Your task to perform on an android device: add a contact Image 0: 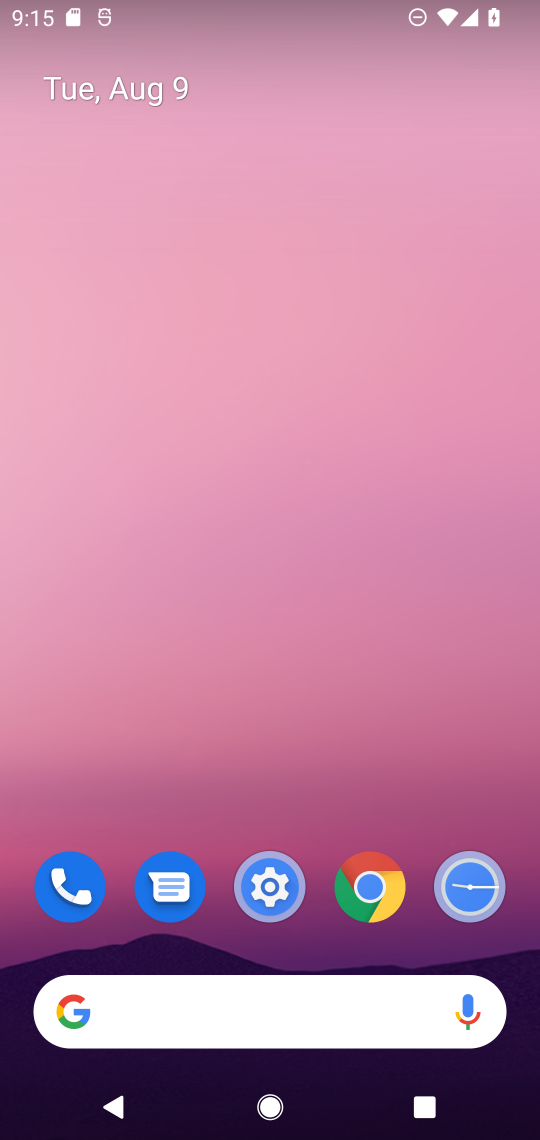
Step 0: drag from (293, 773) to (239, 293)
Your task to perform on an android device: add a contact Image 1: 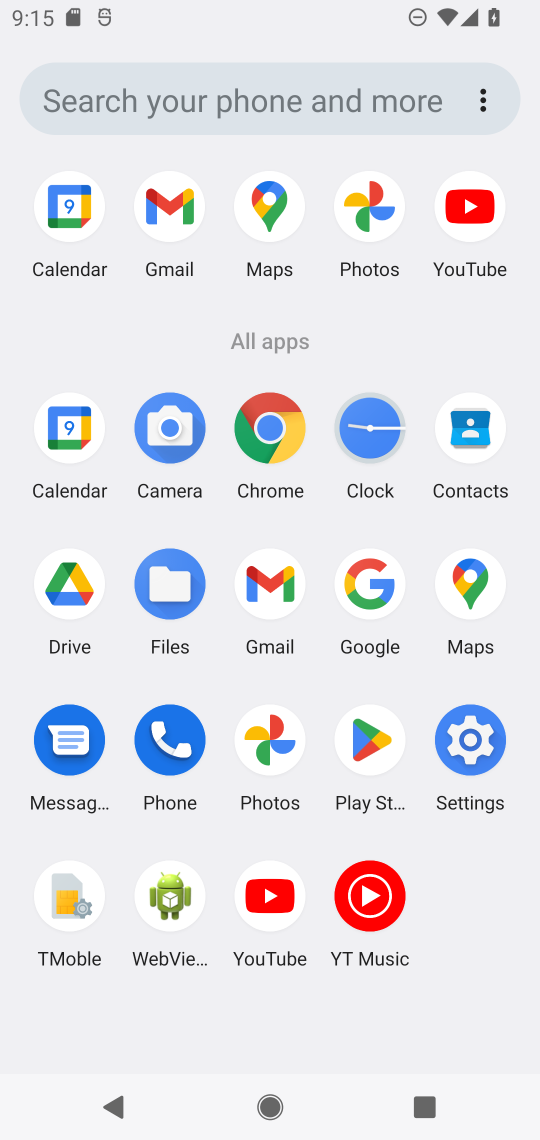
Step 1: click (456, 453)
Your task to perform on an android device: add a contact Image 2: 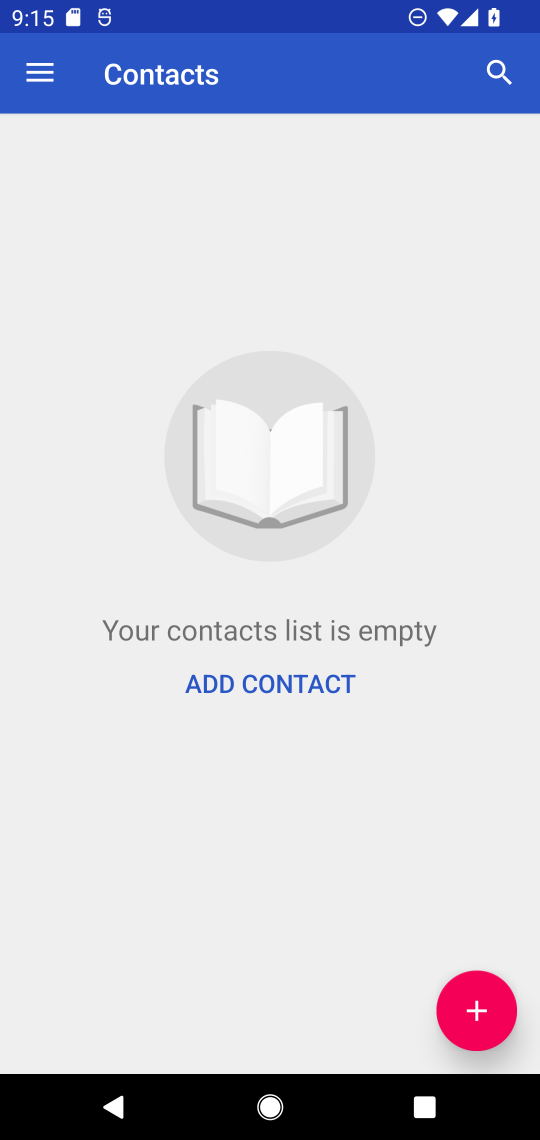
Step 2: click (473, 1008)
Your task to perform on an android device: add a contact Image 3: 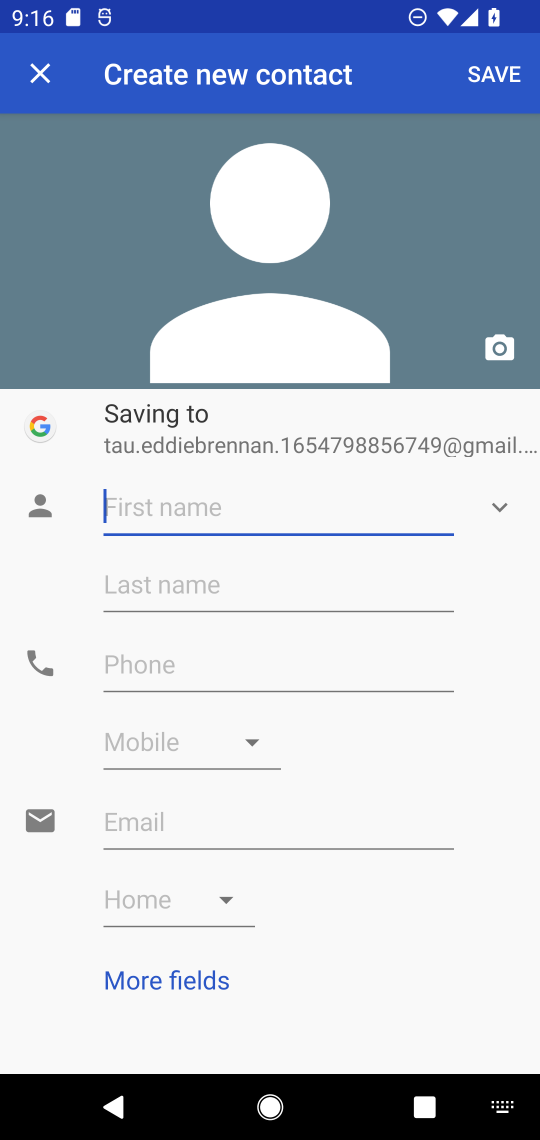
Step 3: type "vczdvz"
Your task to perform on an android device: add a contact Image 4: 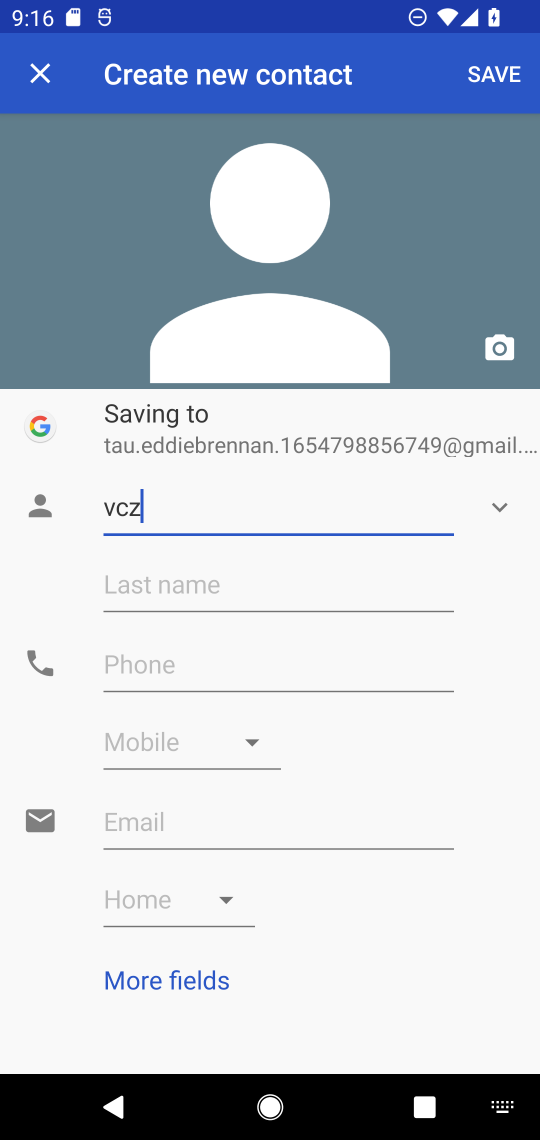
Step 4: type ""
Your task to perform on an android device: add a contact Image 5: 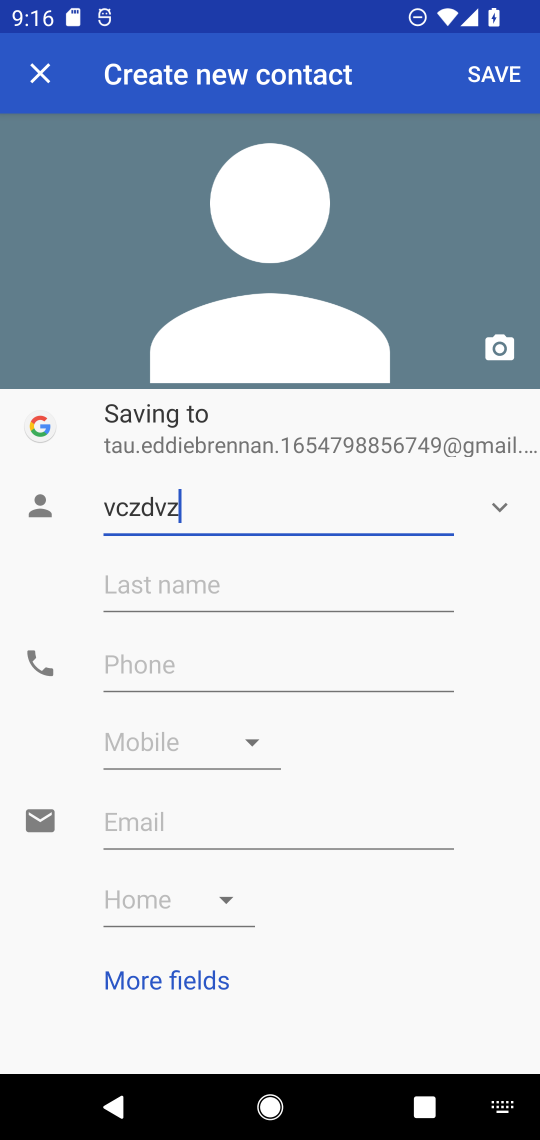
Step 5: click (146, 663)
Your task to perform on an android device: add a contact Image 6: 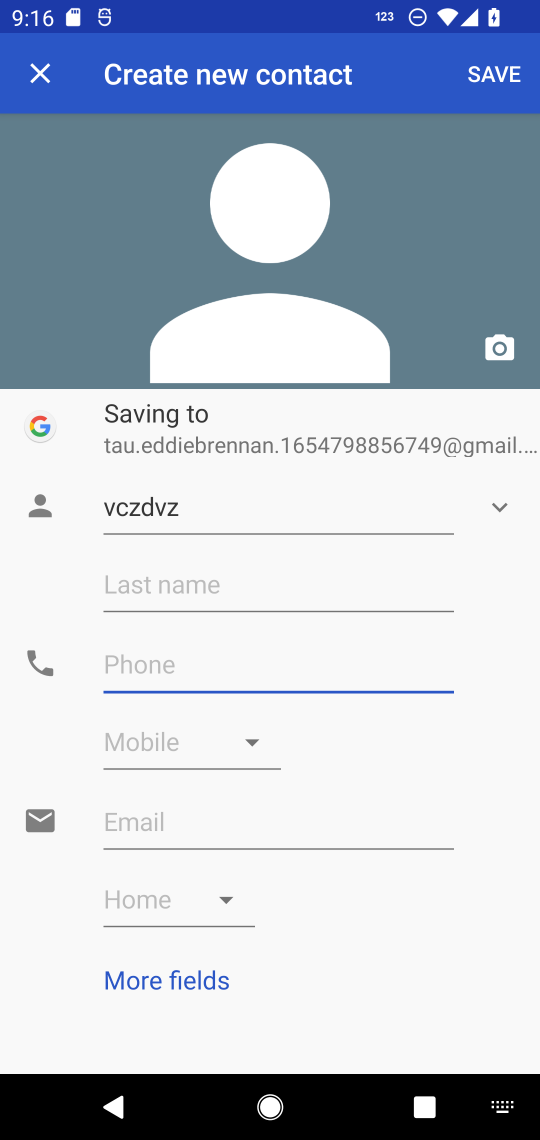
Step 6: type "6436453e346"
Your task to perform on an android device: add a contact Image 7: 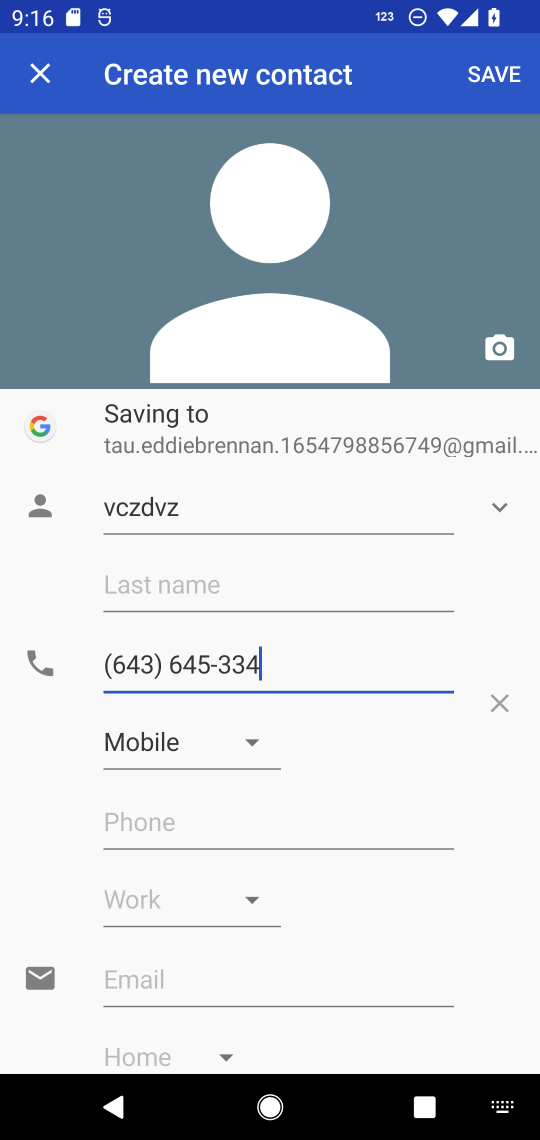
Step 7: type ""
Your task to perform on an android device: add a contact Image 8: 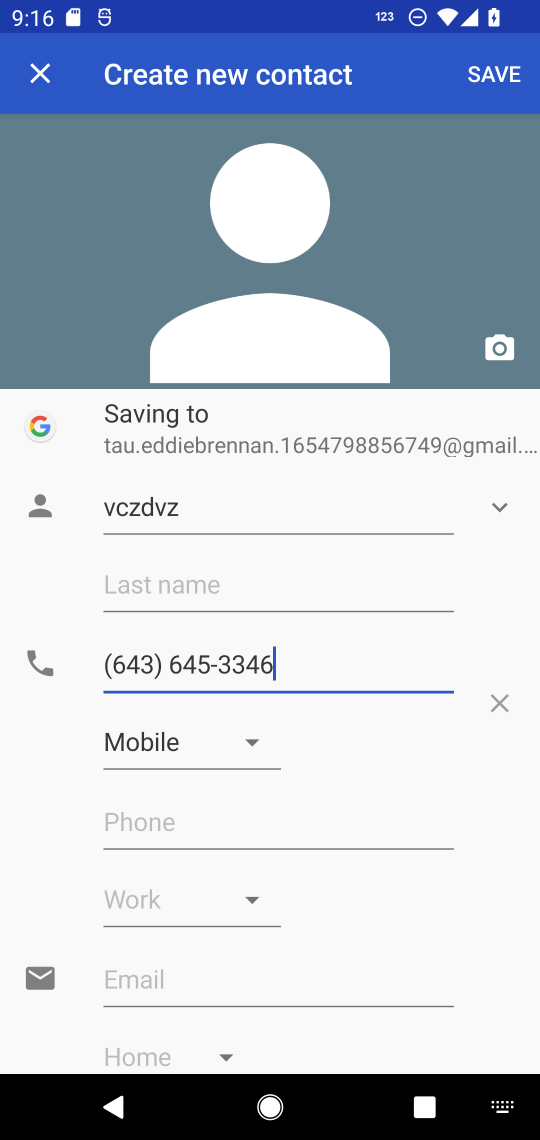
Step 8: click (497, 75)
Your task to perform on an android device: add a contact Image 9: 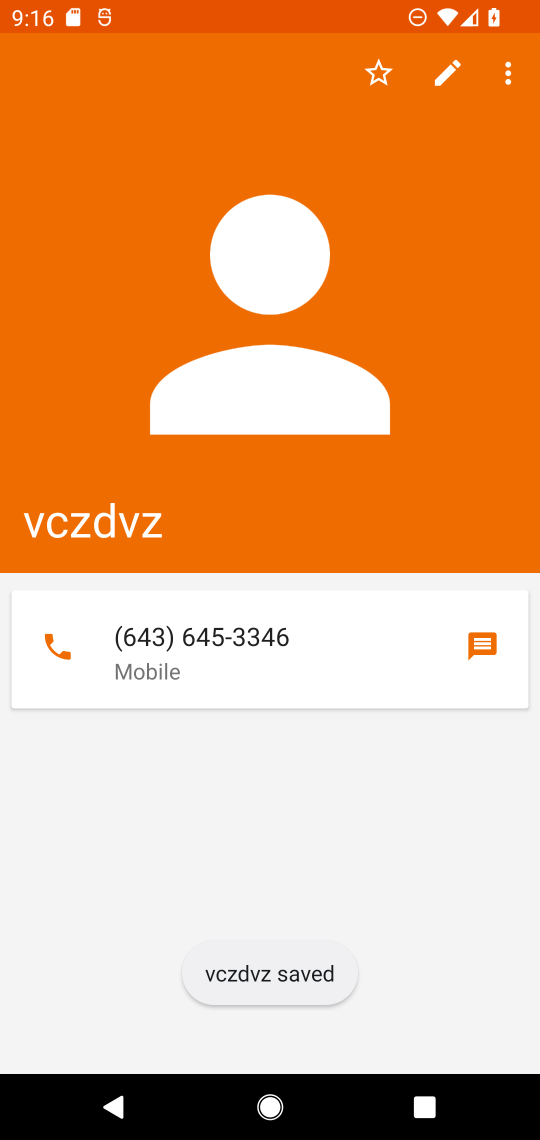
Step 9: task complete